Your task to perform on an android device: View the shopping cart on amazon.com. Image 0: 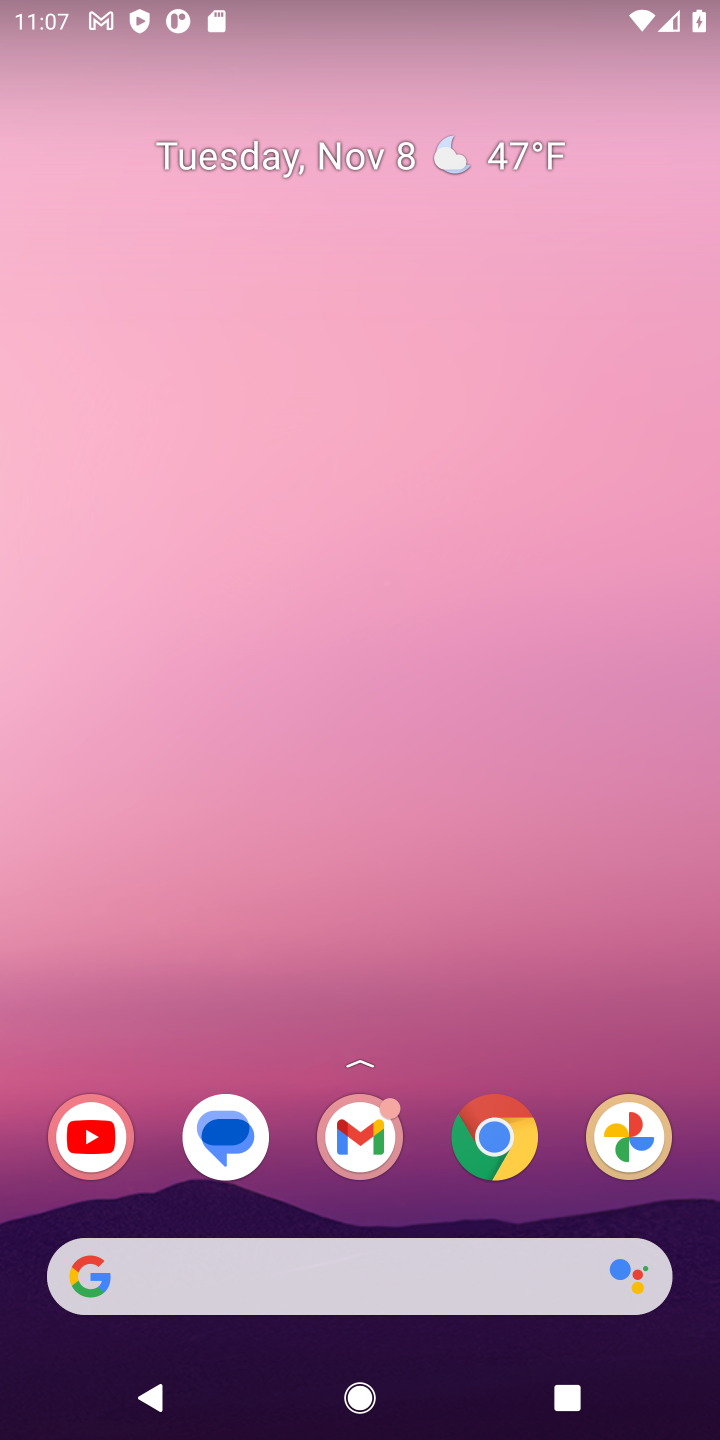
Step 0: click (493, 1143)
Your task to perform on an android device: View the shopping cart on amazon.com. Image 1: 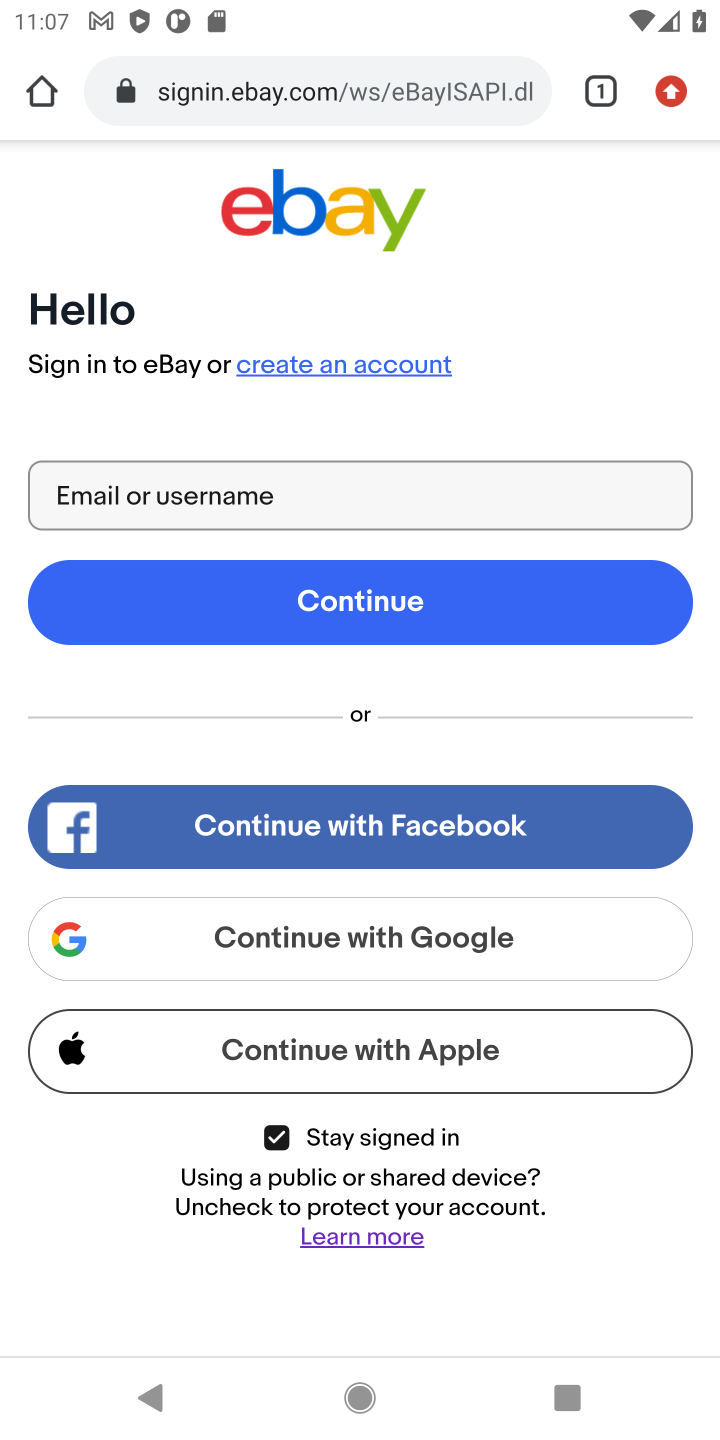
Step 1: click (249, 81)
Your task to perform on an android device: View the shopping cart on amazon.com. Image 2: 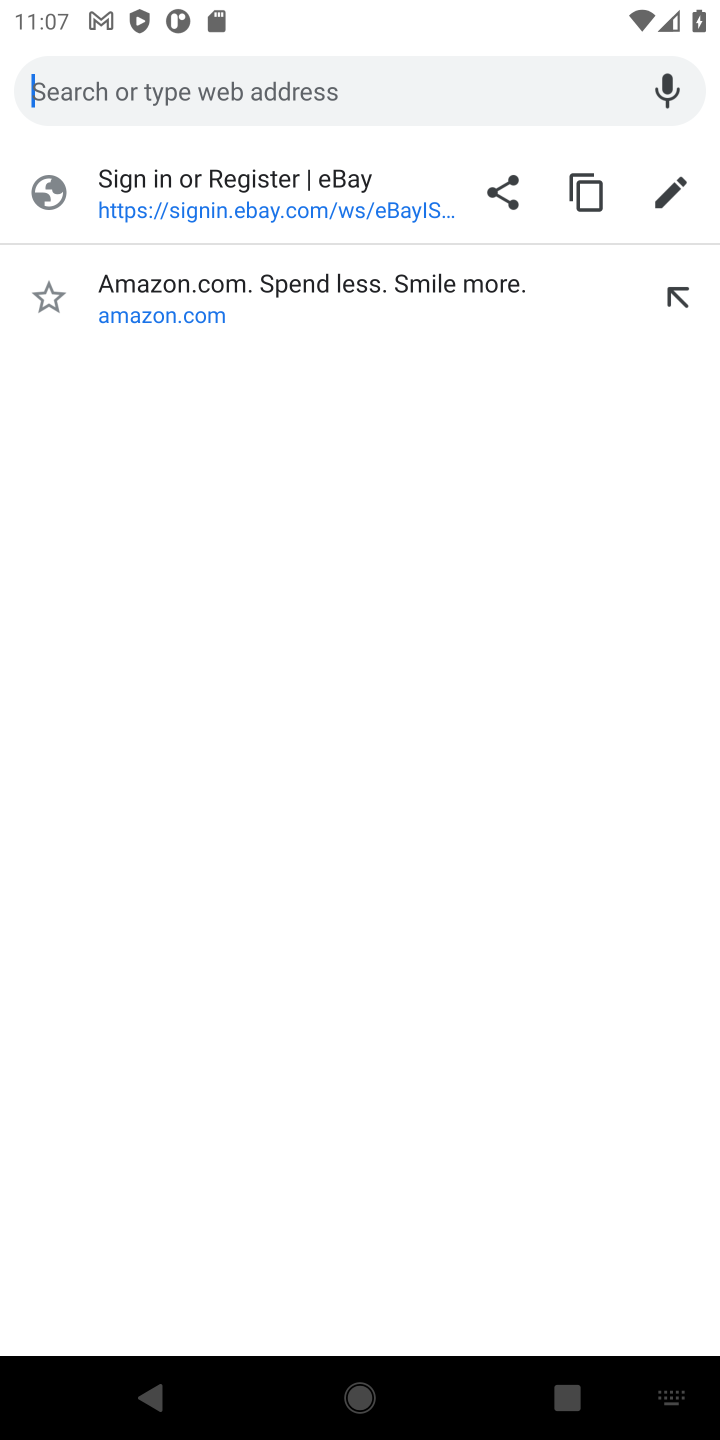
Step 2: type "amazon.com"
Your task to perform on an android device: View the shopping cart on amazon.com. Image 3: 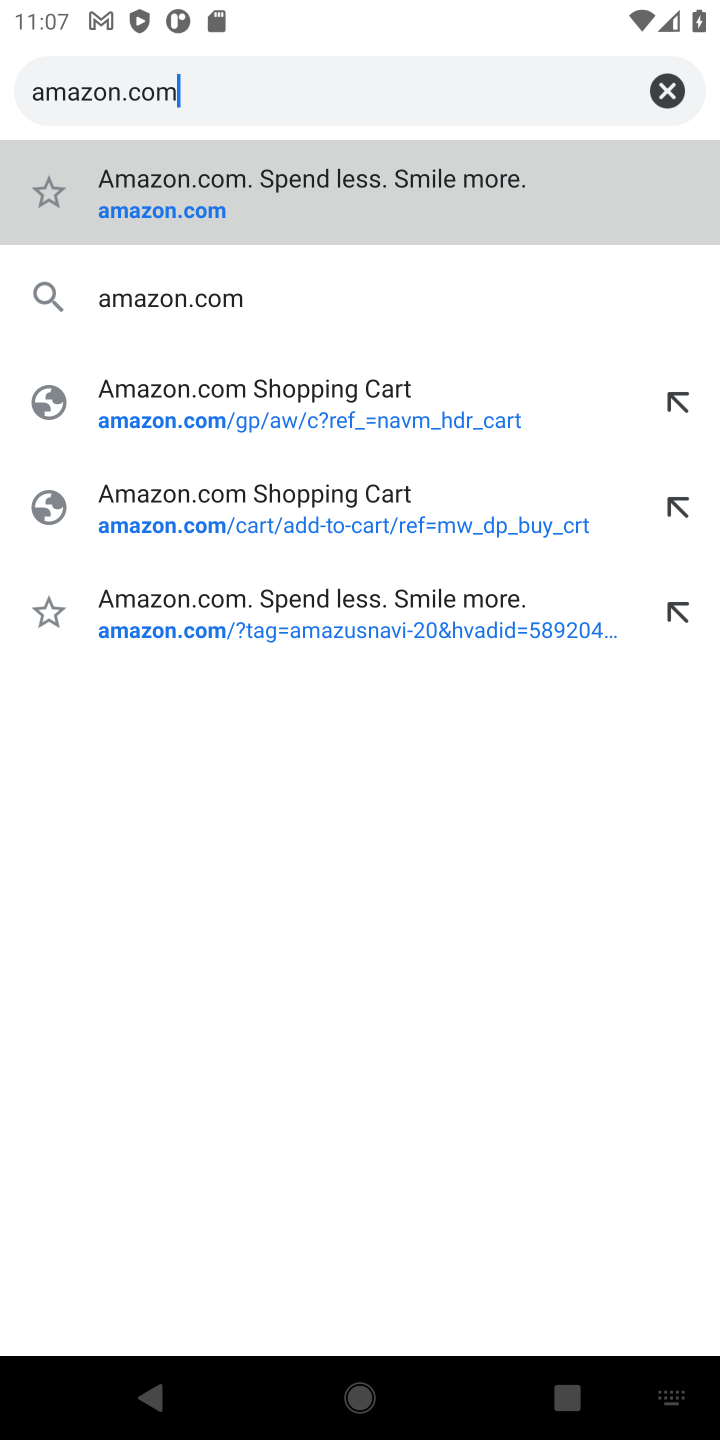
Step 3: click (175, 305)
Your task to perform on an android device: View the shopping cart on amazon.com. Image 4: 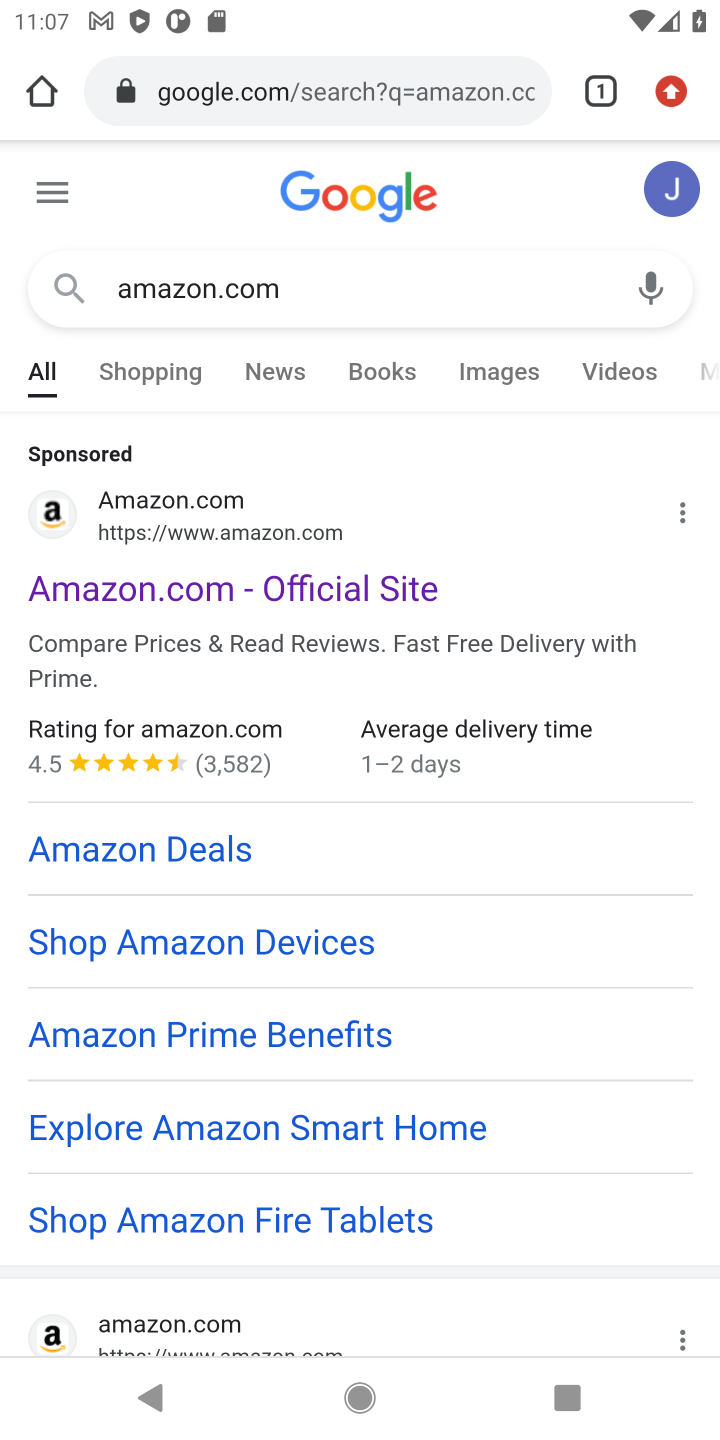
Step 4: drag from (428, 1052) to (495, 558)
Your task to perform on an android device: View the shopping cart on amazon.com. Image 5: 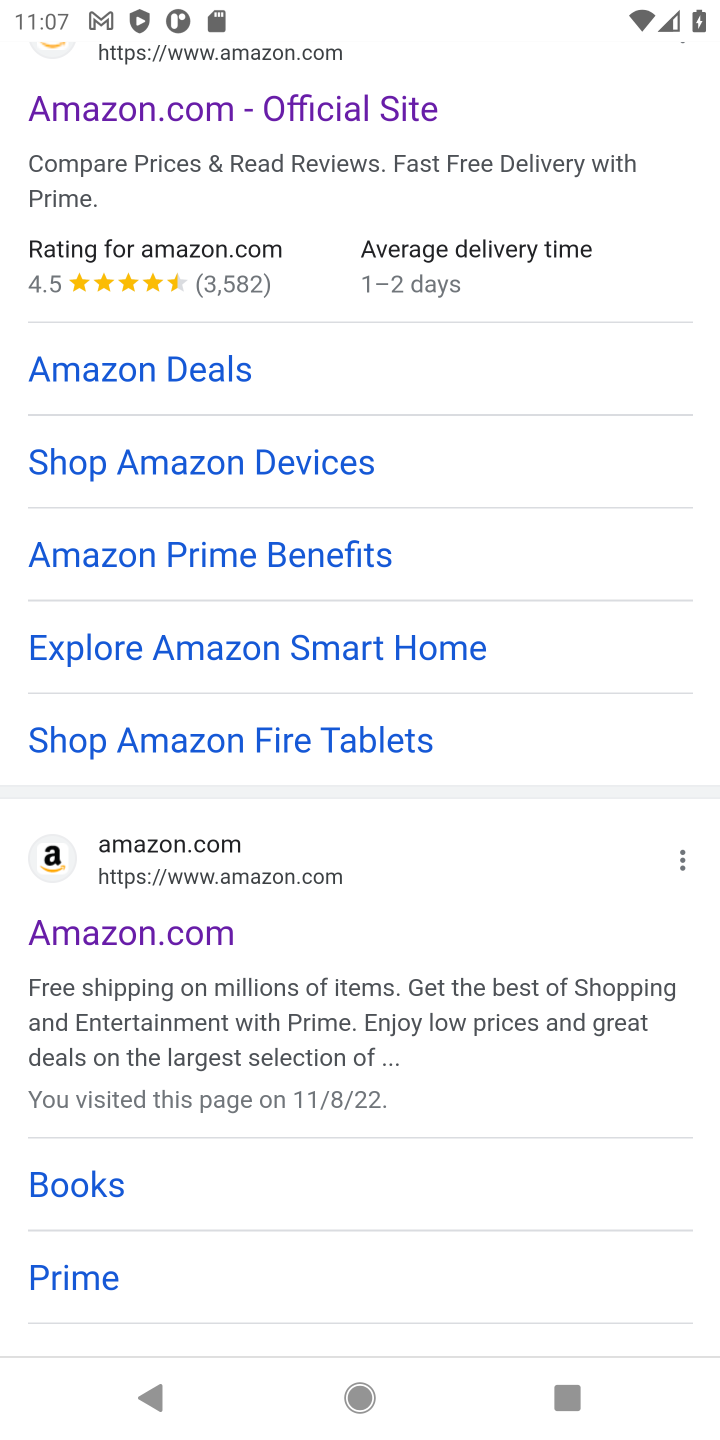
Step 5: drag from (312, 1126) to (359, 743)
Your task to perform on an android device: View the shopping cart on amazon.com. Image 6: 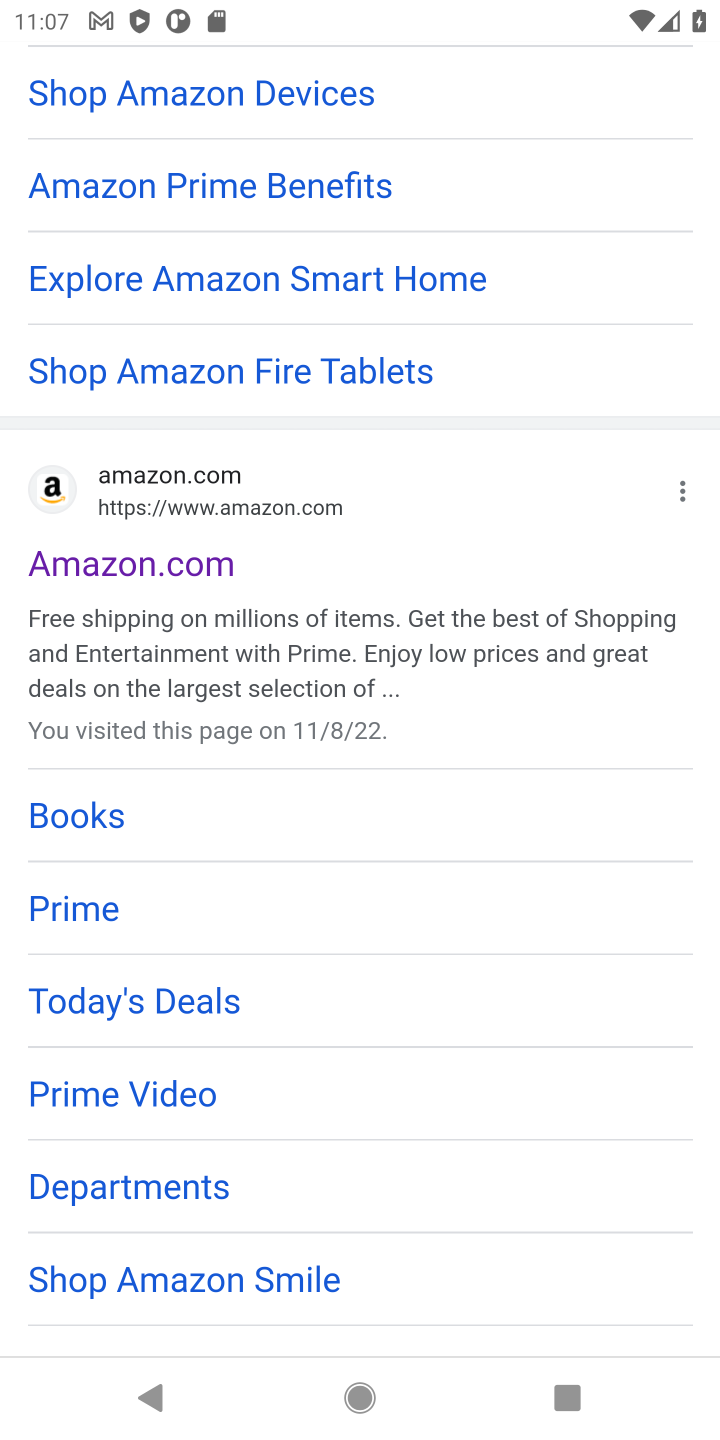
Step 6: click (132, 589)
Your task to perform on an android device: View the shopping cart on amazon.com. Image 7: 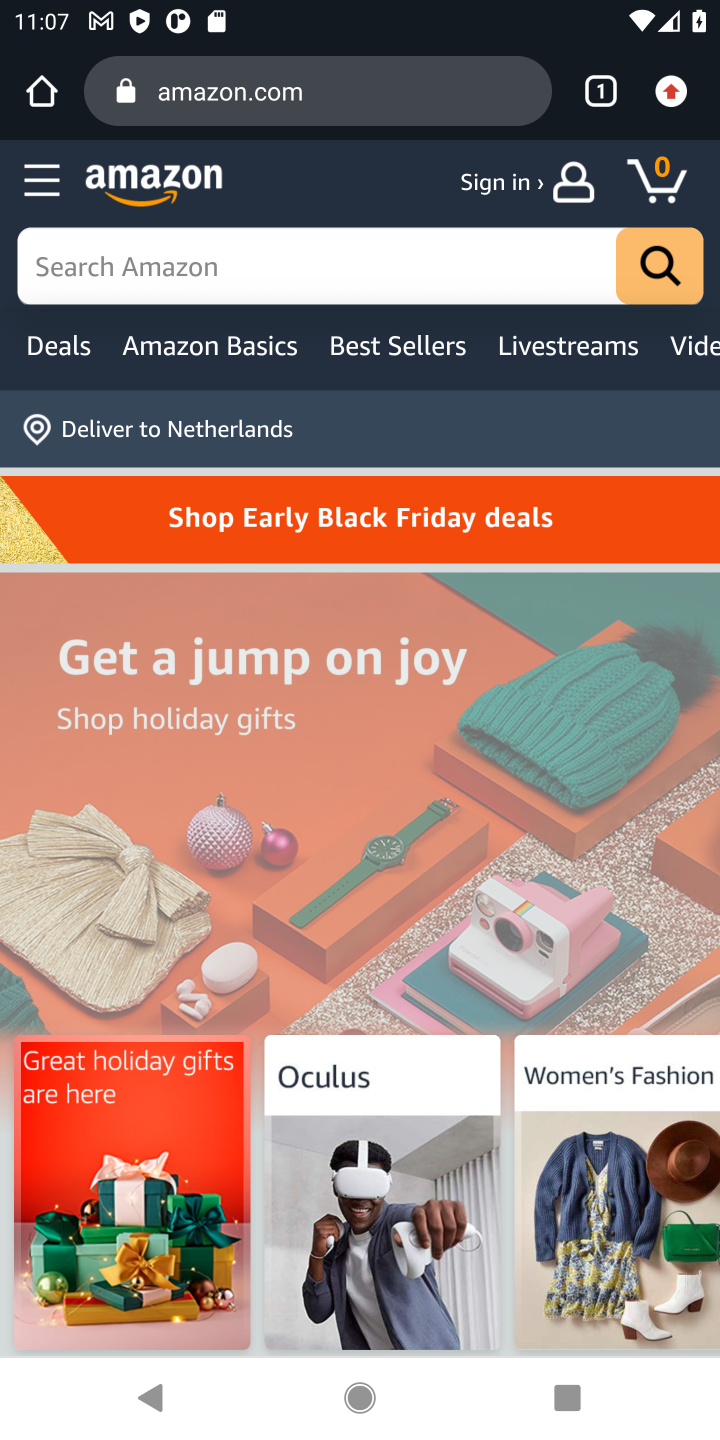
Step 7: click (670, 177)
Your task to perform on an android device: View the shopping cart on amazon.com. Image 8: 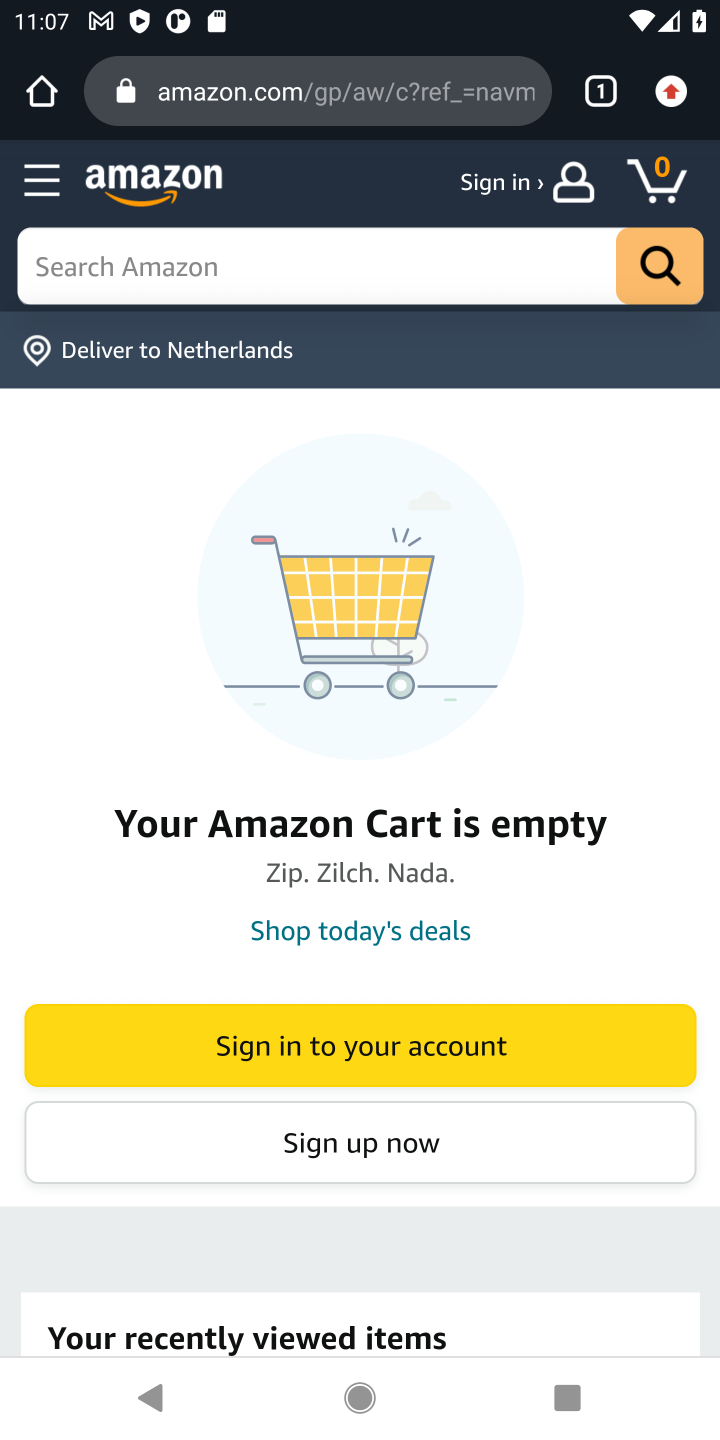
Step 8: task complete